Your task to perform on an android device: turn on the 24-hour format for clock Image 0: 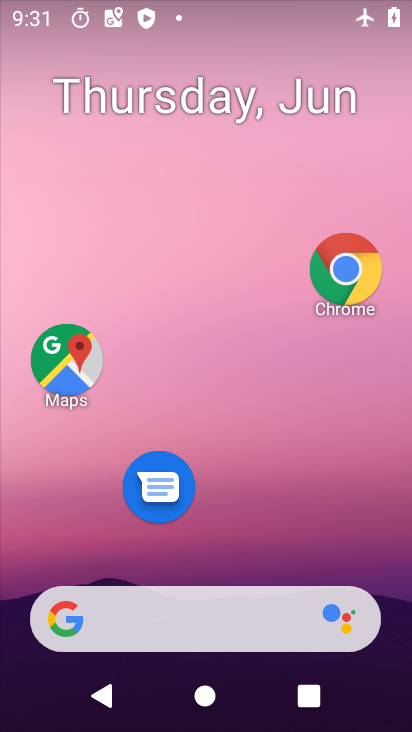
Step 0: drag from (258, 146) to (233, 33)
Your task to perform on an android device: turn on the 24-hour format for clock Image 1: 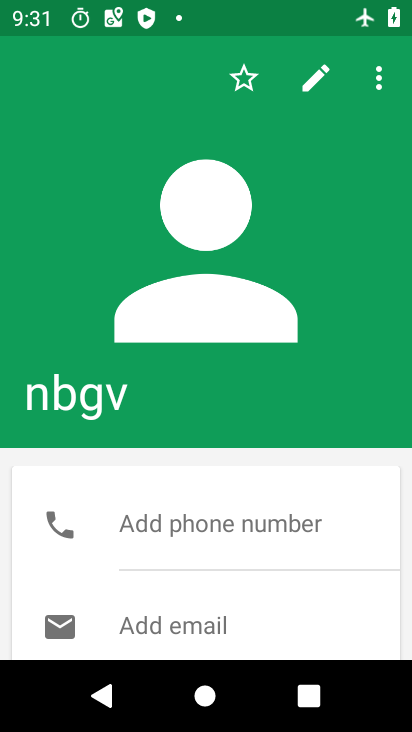
Step 1: press home button
Your task to perform on an android device: turn on the 24-hour format for clock Image 2: 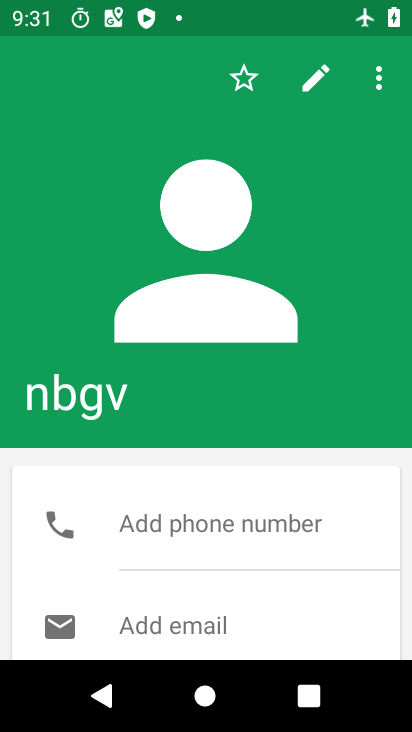
Step 2: press home button
Your task to perform on an android device: turn on the 24-hour format for clock Image 3: 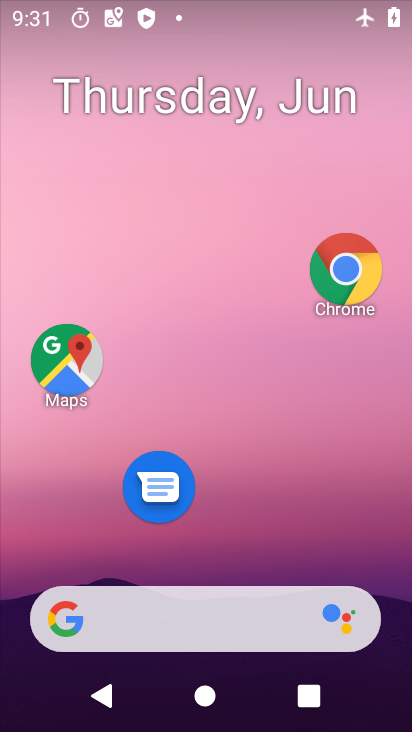
Step 3: drag from (196, 518) to (246, 100)
Your task to perform on an android device: turn on the 24-hour format for clock Image 4: 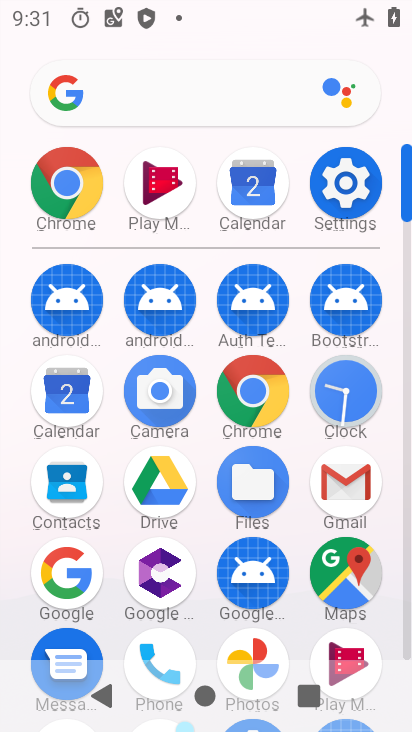
Step 4: click (358, 376)
Your task to perform on an android device: turn on the 24-hour format for clock Image 5: 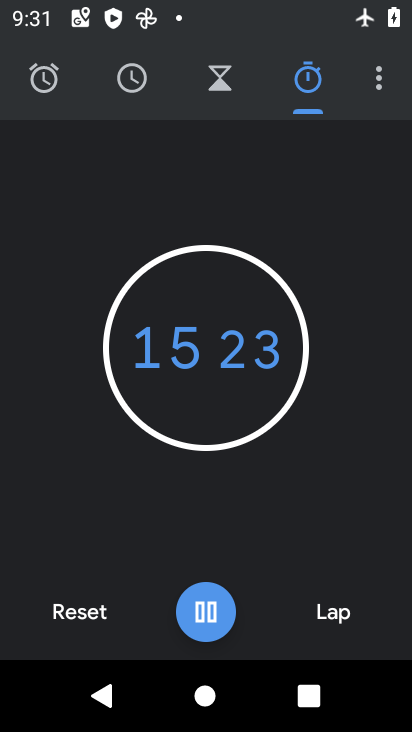
Step 5: click (378, 96)
Your task to perform on an android device: turn on the 24-hour format for clock Image 6: 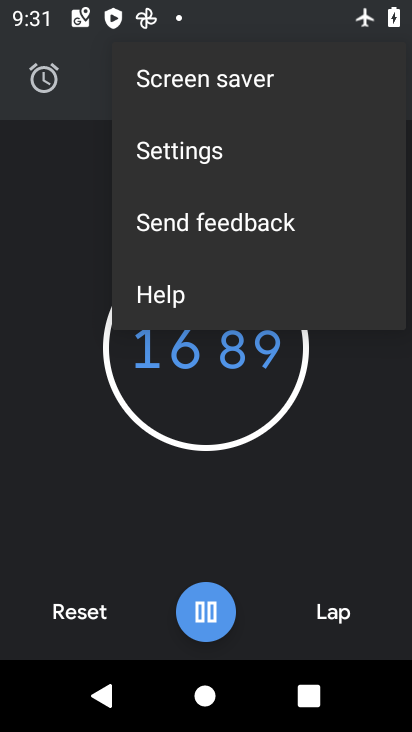
Step 6: click (246, 149)
Your task to perform on an android device: turn on the 24-hour format for clock Image 7: 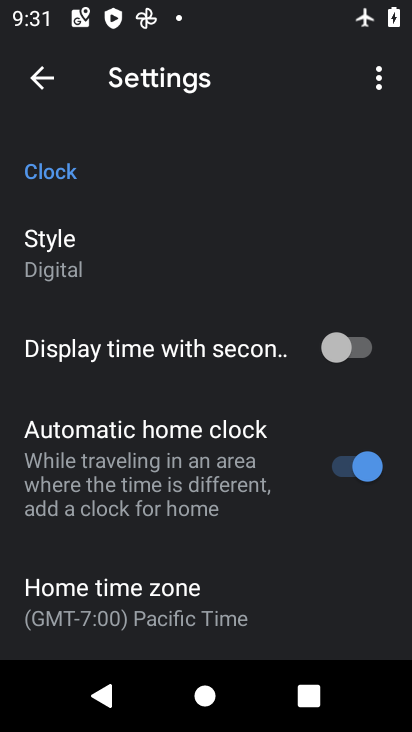
Step 7: drag from (208, 542) to (266, 59)
Your task to perform on an android device: turn on the 24-hour format for clock Image 8: 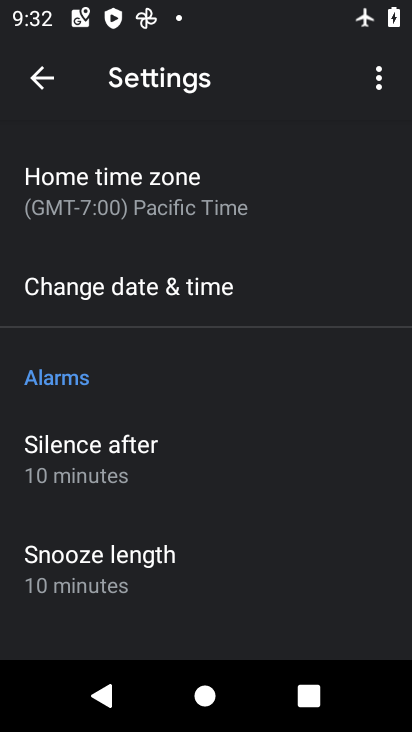
Step 8: click (181, 286)
Your task to perform on an android device: turn on the 24-hour format for clock Image 9: 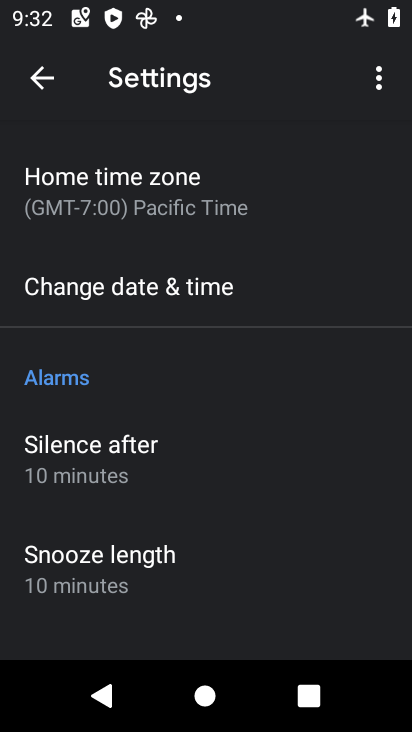
Step 9: click (181, 286)
Your task to perform on an android device: turn on the 24-hour format for clock Image 10: 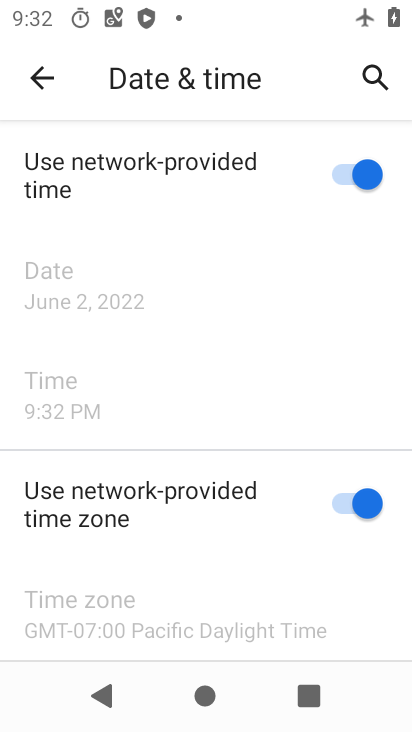
Step 10: drag from (196, 487) to (262, 101)
Your task to perform on an android device: turn on the 24-hour format for clock Image 11: 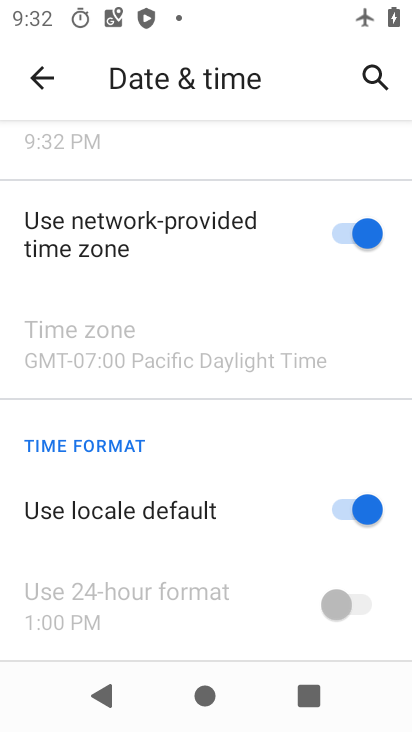
Step 11: drag from (240, 514) to (285, 79)
Your task to perform on an android device: turn on the 24-hour format for clock Image 12: 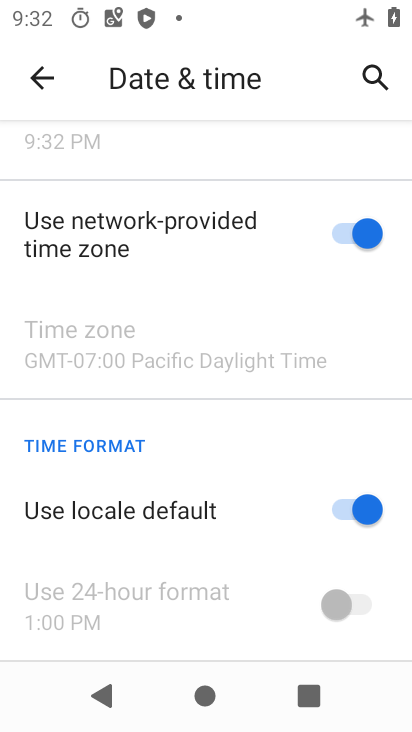
Step 12: drag from (273, 308) to (307, 728)
Your task to perform on an android device: turn on the 24-hour format for clock Image 13: 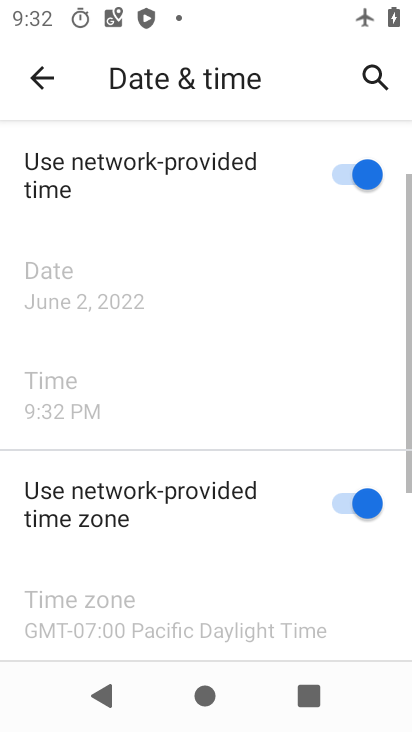
Step 13: drag from (228, 399) to (315, 63)
Your task to perform on an android device: turn on the 24-hour format for clock Image 14: 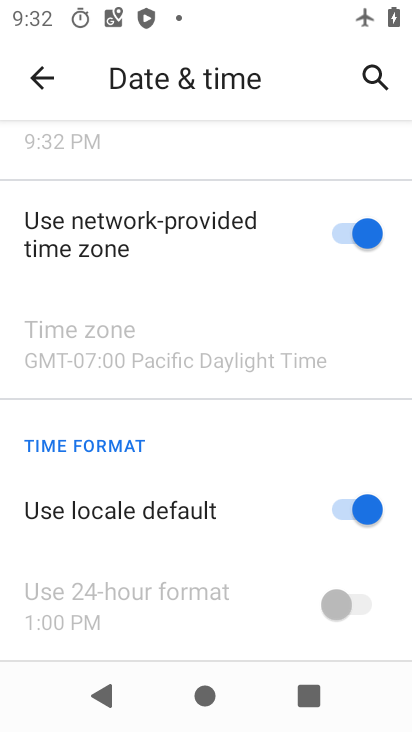
Step 14: click (359, 477)
Your task to perform on an android device: turn on the 24-hour format for clock Image 15: 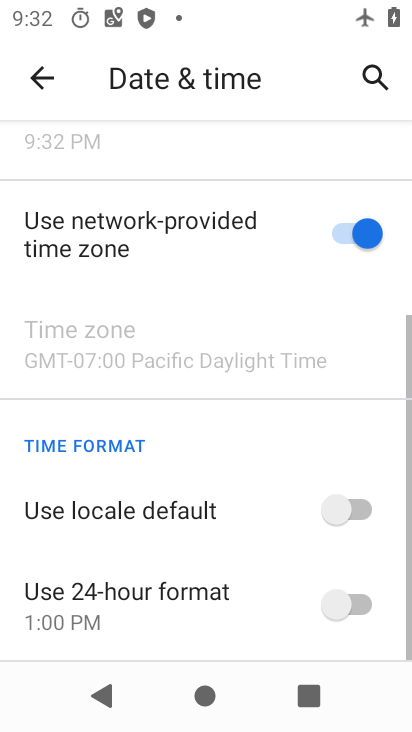
Step 15: click (334, 591)
Your task to perform on an android device: turn on the 24-hour format for clock Image 16: 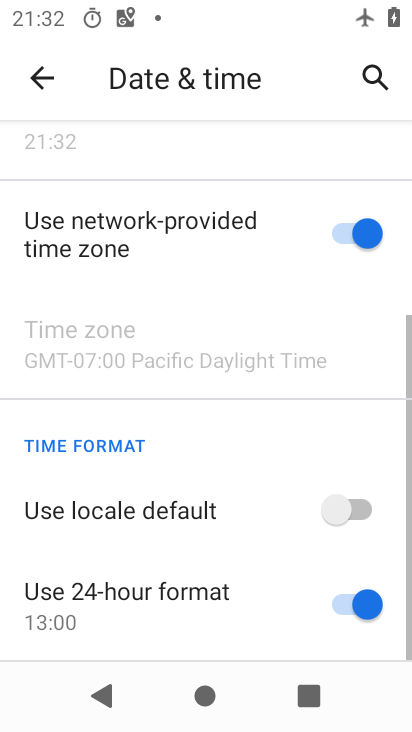
Step 16: task complete